Your task to perform on an android device: Search for flights from NYC to Sydney Image 0: 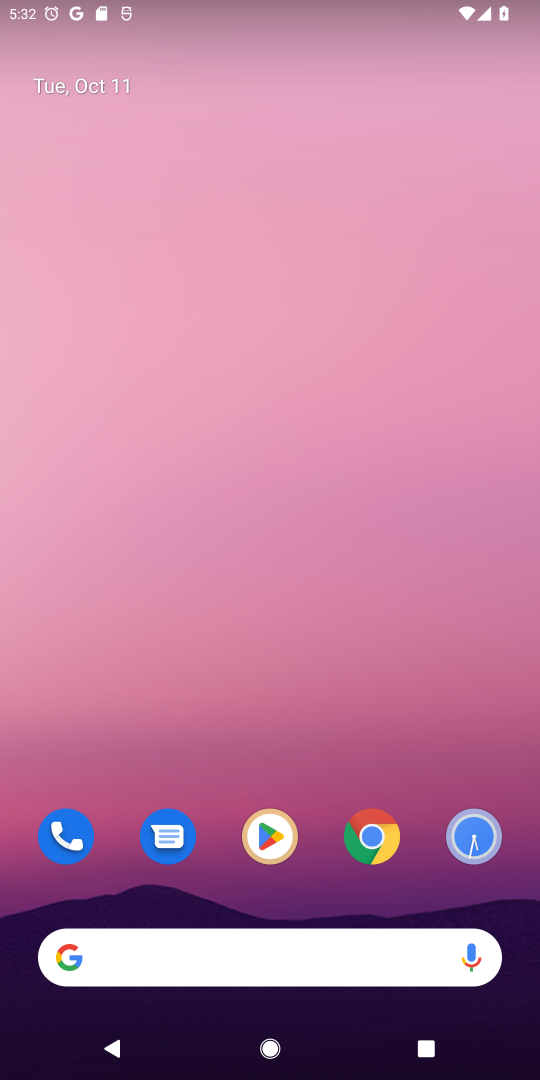
Step 0: drag from (216, 1067) to (431, 1054)
Your task to perform on an android device: Search for flights from NYC to Sydney Image 1: 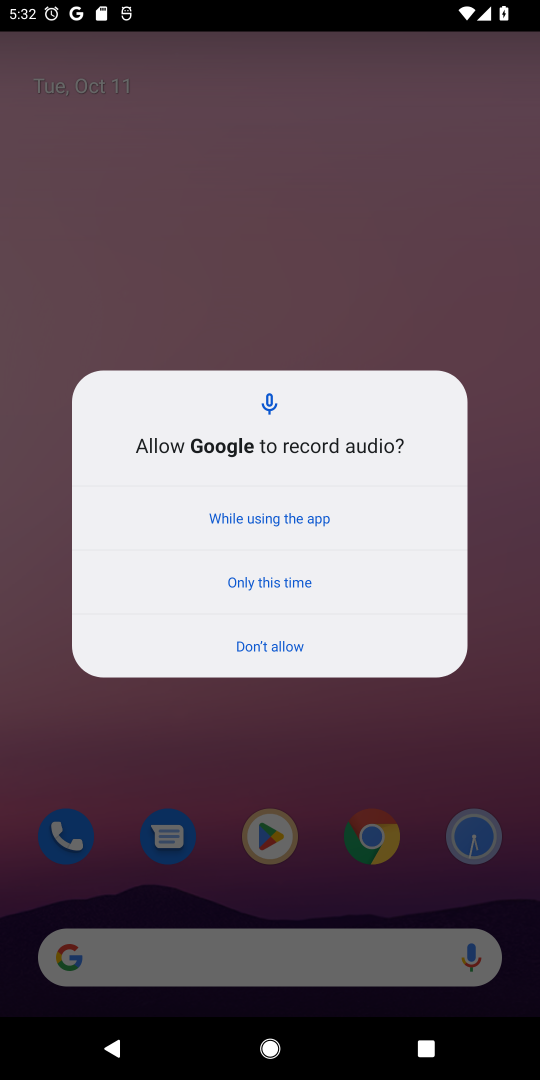
Step 1: click (435, 767)
Your task to perform on an android device: Search for flights from NYC to Sydney Image 2: 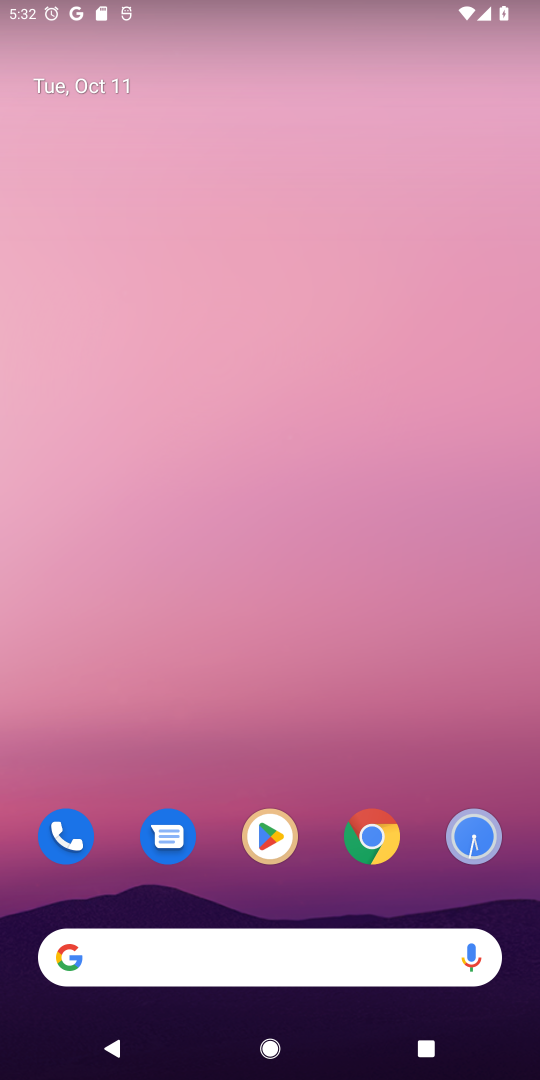
Step 2: click (273, 946)
Your task to perform on an android device: Search for flights from NYC to Sydney Image 3: 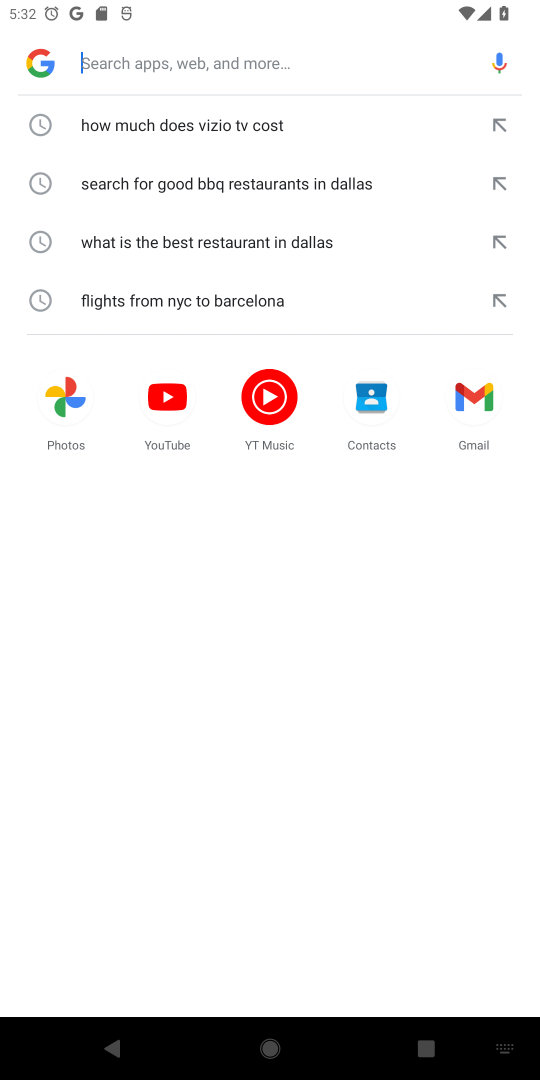
Step 3: type "lights from NYC to Sydney"
Your task to perform on an android device: Search for flights from NYC to Sydney Image 4: 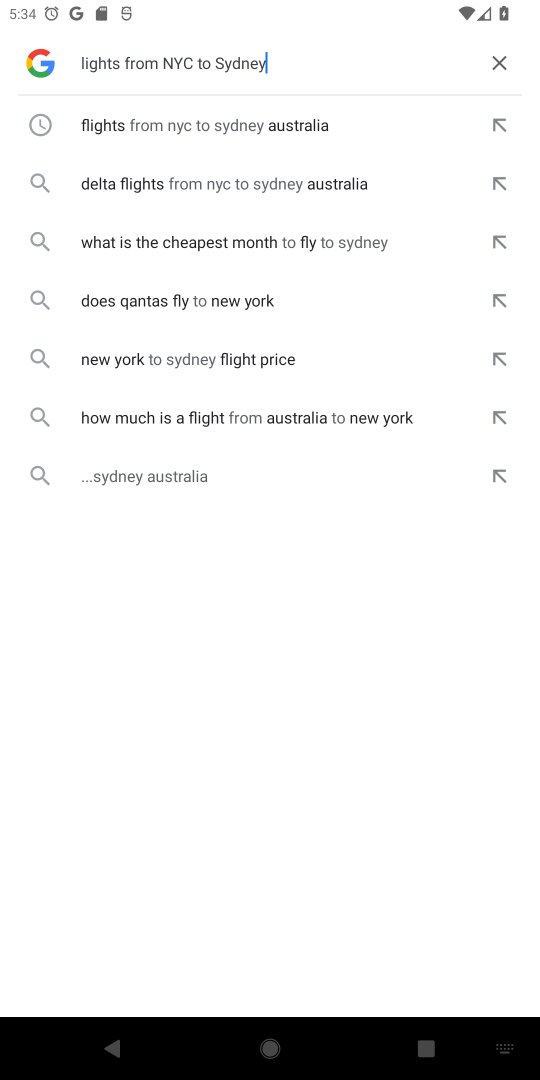
Step 4: click (81, 109)
Your task to perform on an android device: Search for flights from NYC to Sydney Image 5: 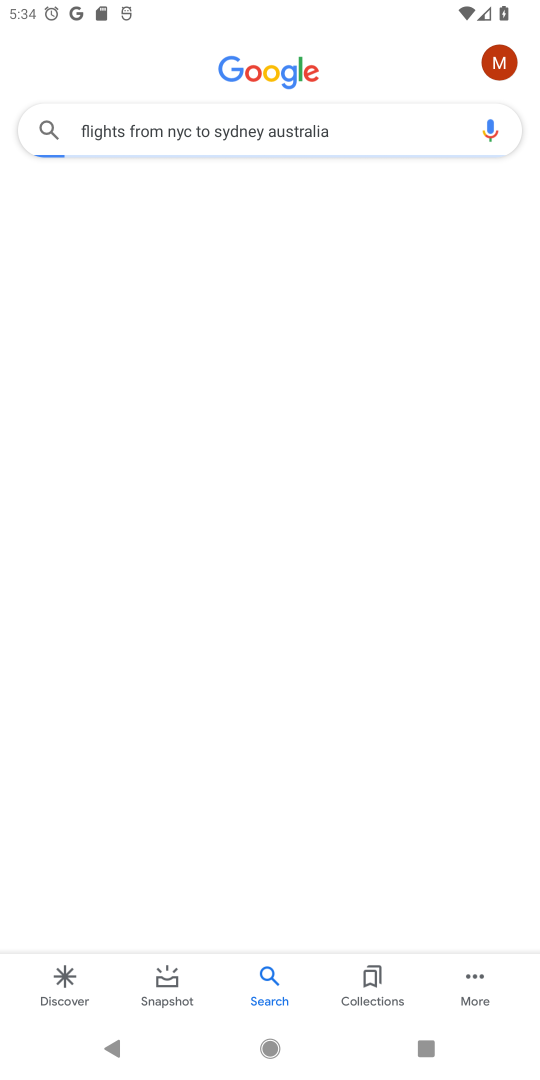
Step 5: task complete